Your task to perform on an android device: Open Google Chrome and click the shortcut for Amazon.com Image 0: 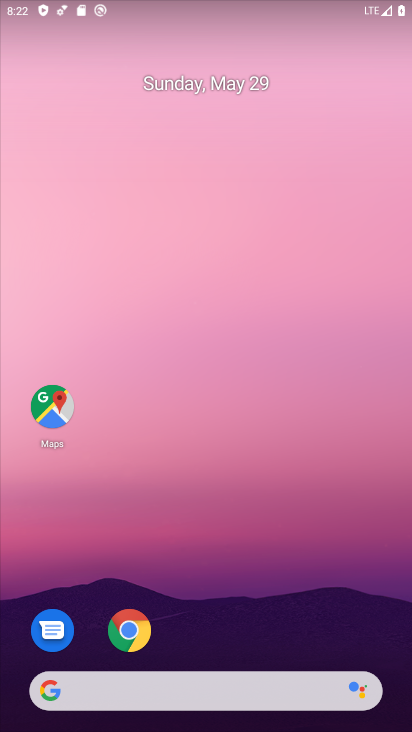
Step 0: click (147, 625)
Your task to perform on an android device: Open Google Chrome and click the shortcut for Amazon.com Image 1: 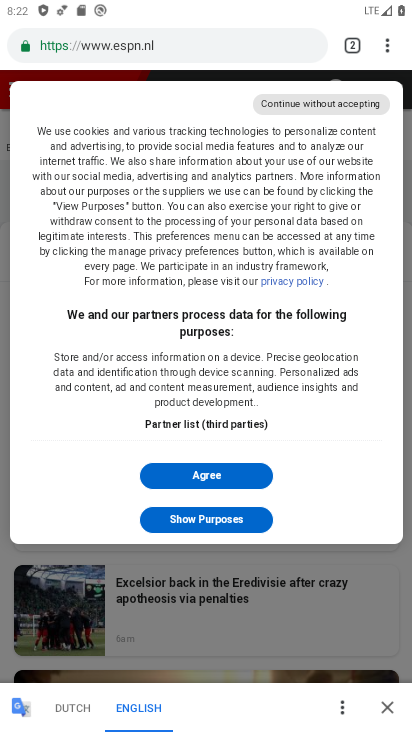
Step 1: click (346, 49)
Your task to perform on an android device: Open Google Chrome and click the shortcut for Amazon.com Image 2: 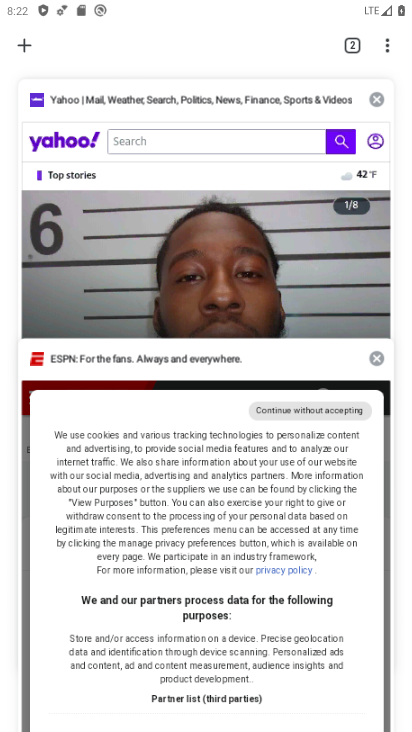
Step 2: click (22, 53)
Your task to perform on an android device: Open Google Chrome and click the shortcut for Amazon.com Image 3: 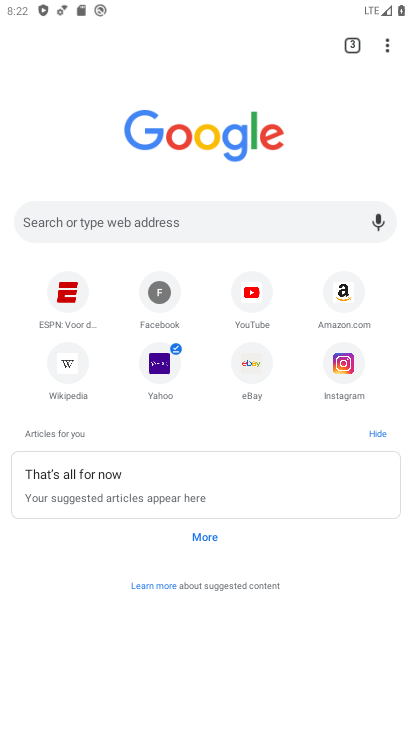
Step 3: click (340, 302)
Your task to perform on an android device: Open Google Chrome and click the shortcut for Amazon.com Image 4: 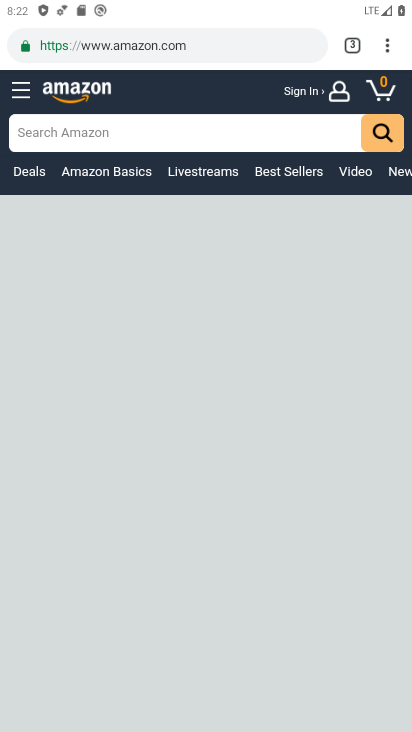
Step 4: task complete